Your task to perform on an android device: Go to Amazon Image 0: 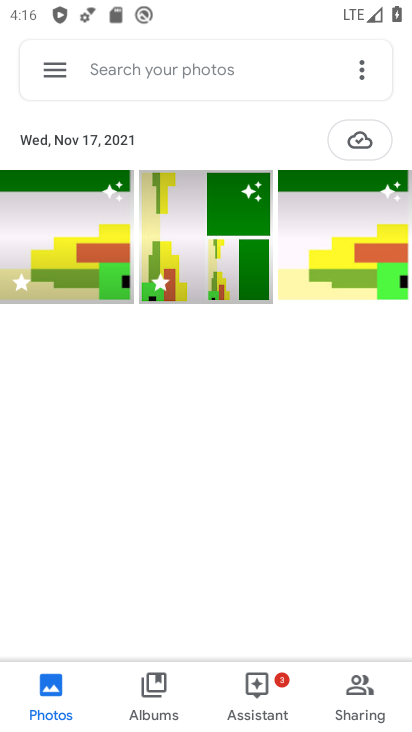
Step 0: press home button
Your task to perform on an android device: Go to Amazon Image 1: 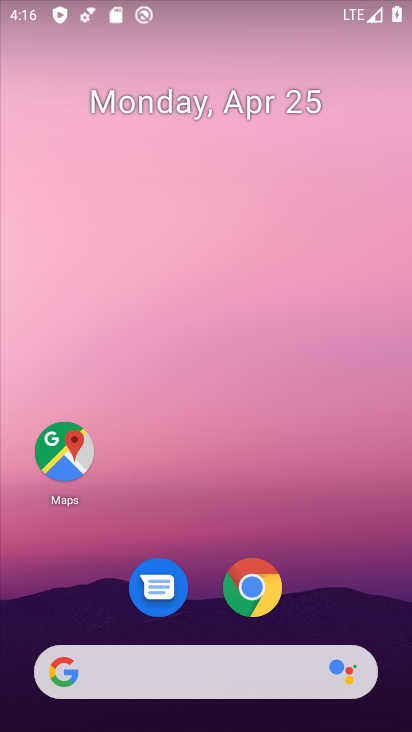
Step 1: click (252, 589)
Your task to perform on an android device: Go to Amazon Image 2: 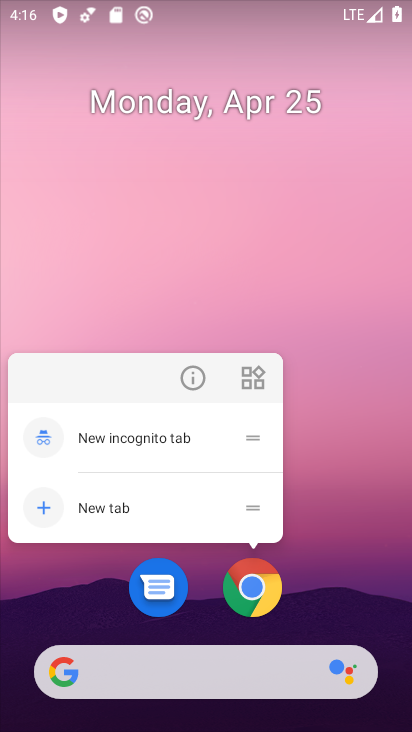
Step 2: click (254, 593)
Your task to perform on an android device: Go to Amazon Image 3: 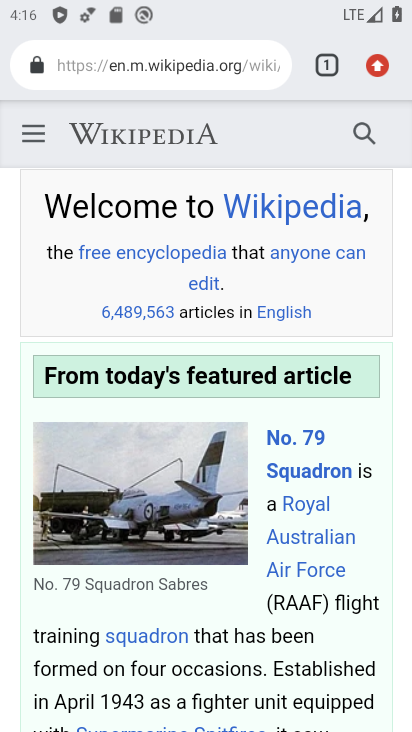
Step 3: click (241, 65)
Your task to perform on an android device: Go to Amazon Image 4: 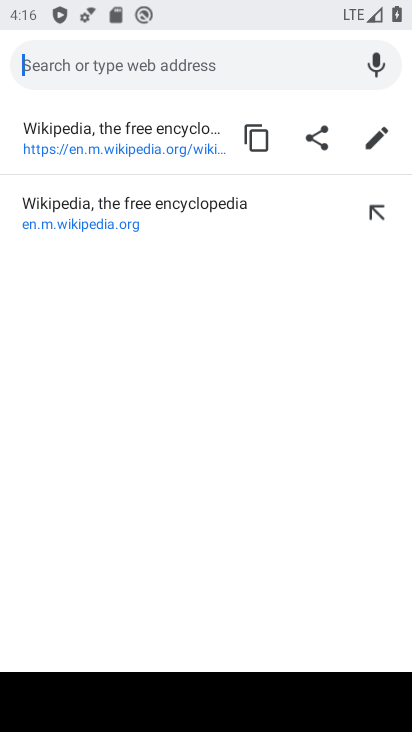
Step 4: type "amazon"
Your task to perform on an android device: Go to Amazon Image 5: 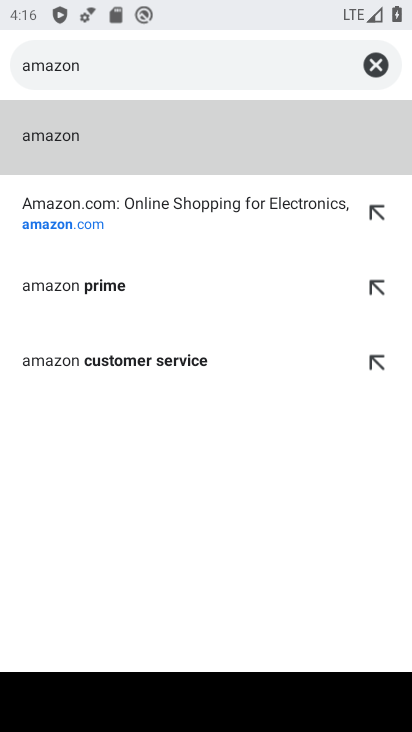
Step 5: click (65, 231)
Your task to perform on an android device: Go to Amazon Image 6: 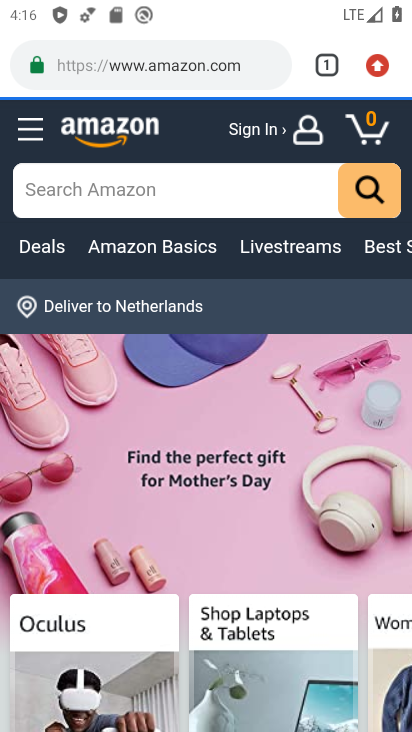
Step 6: task complete